Your task to perform on an android device: change notifications settings Image 0: 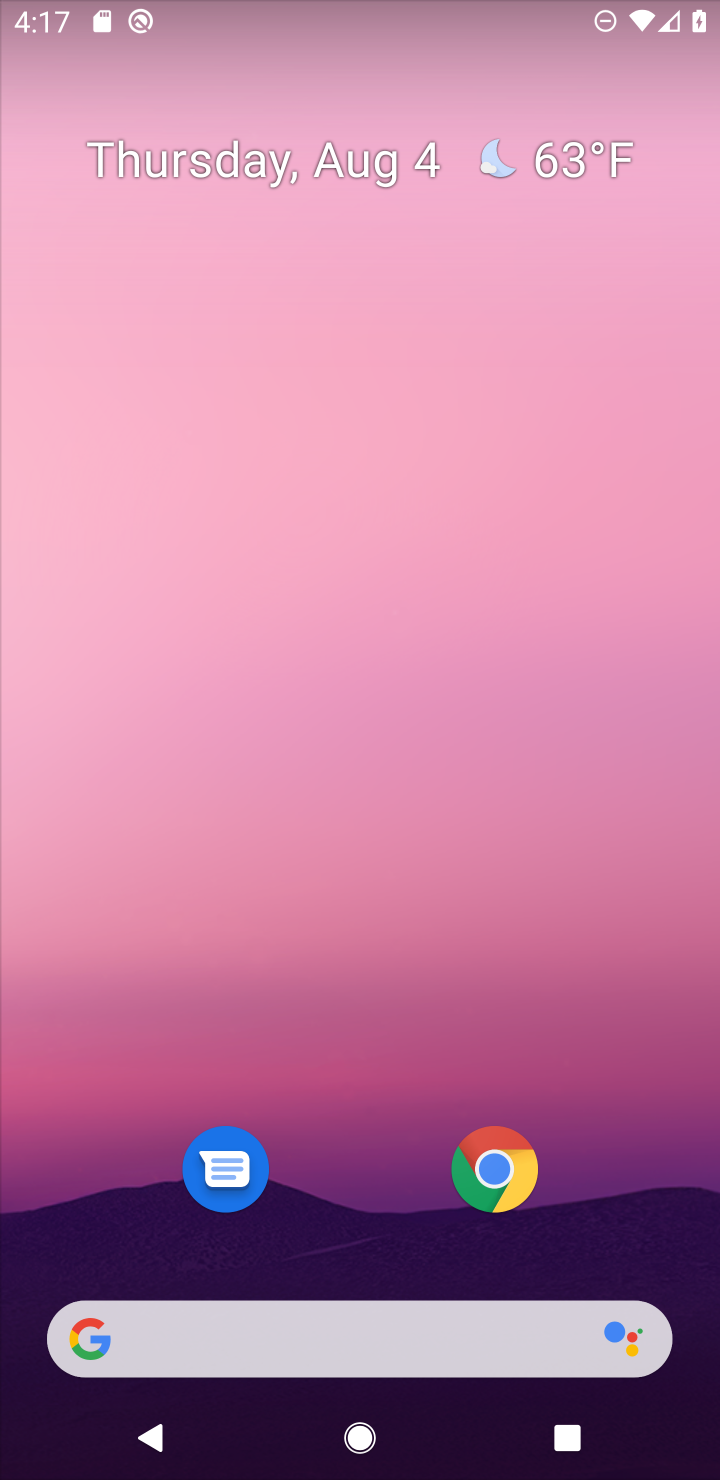
Step 0: drag from (366, 1218) to (384, 661)
Your task to perform on an android device: change notifications settings Image 1: 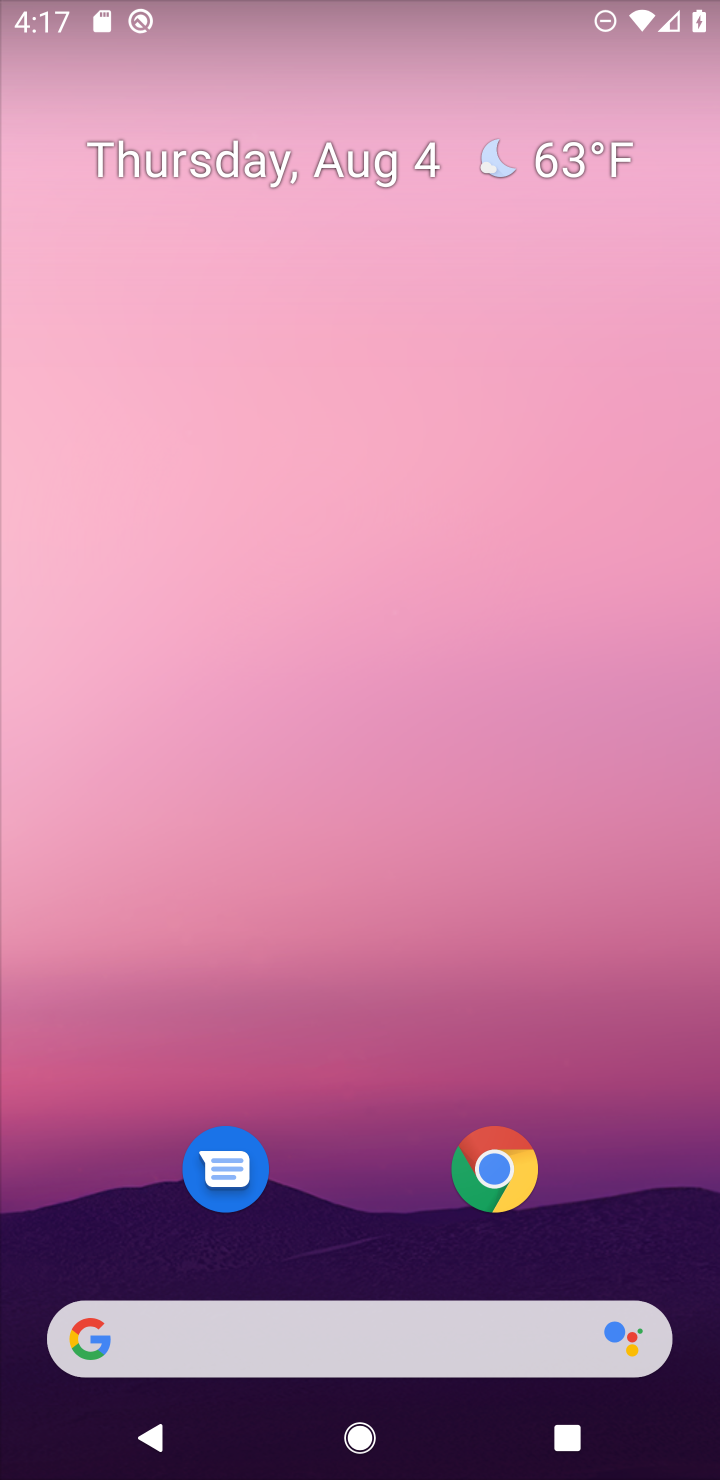
Step 1: drag from (307, 1286) to (345, 309)
Your task to perform on an android device: change notifications settings Image 2: 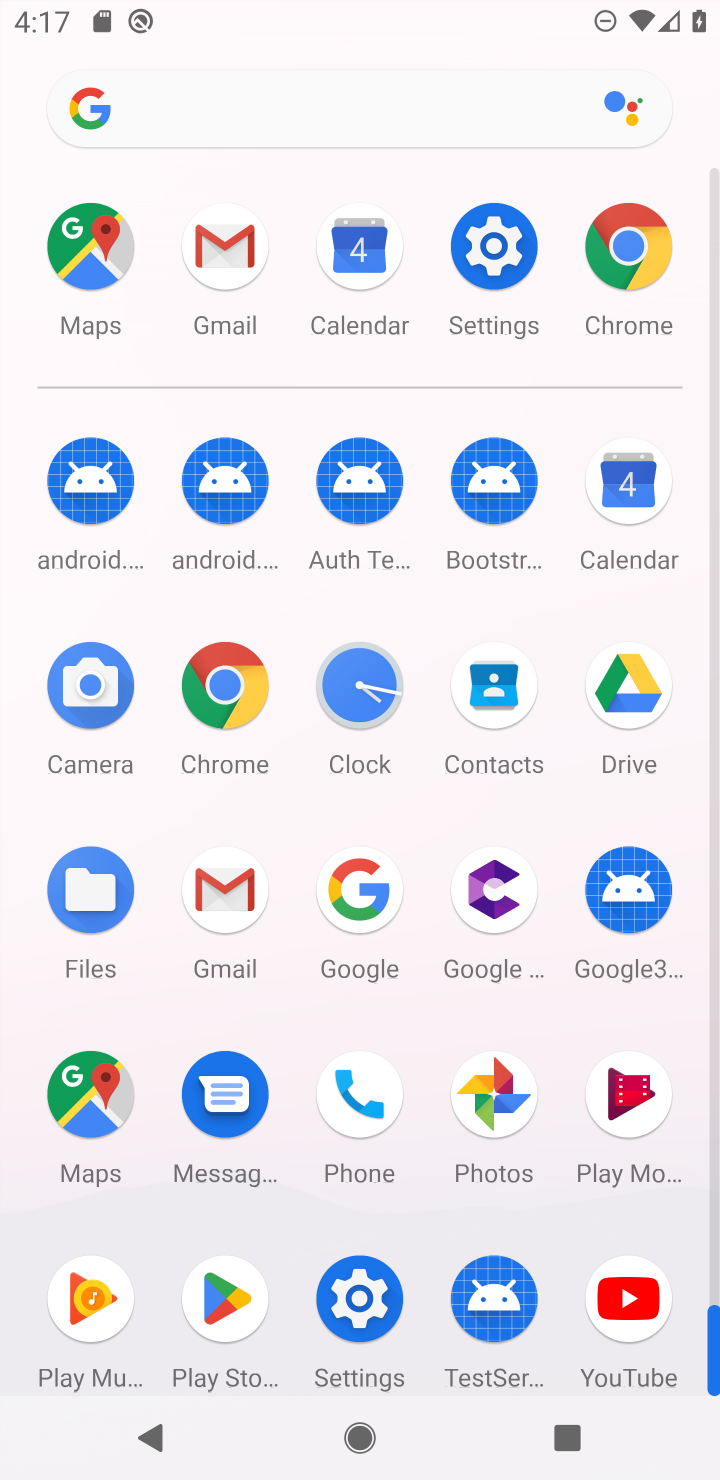
Step 2: click (484, 277)
Your task to perform on an android device: change notifications settings Image 3: 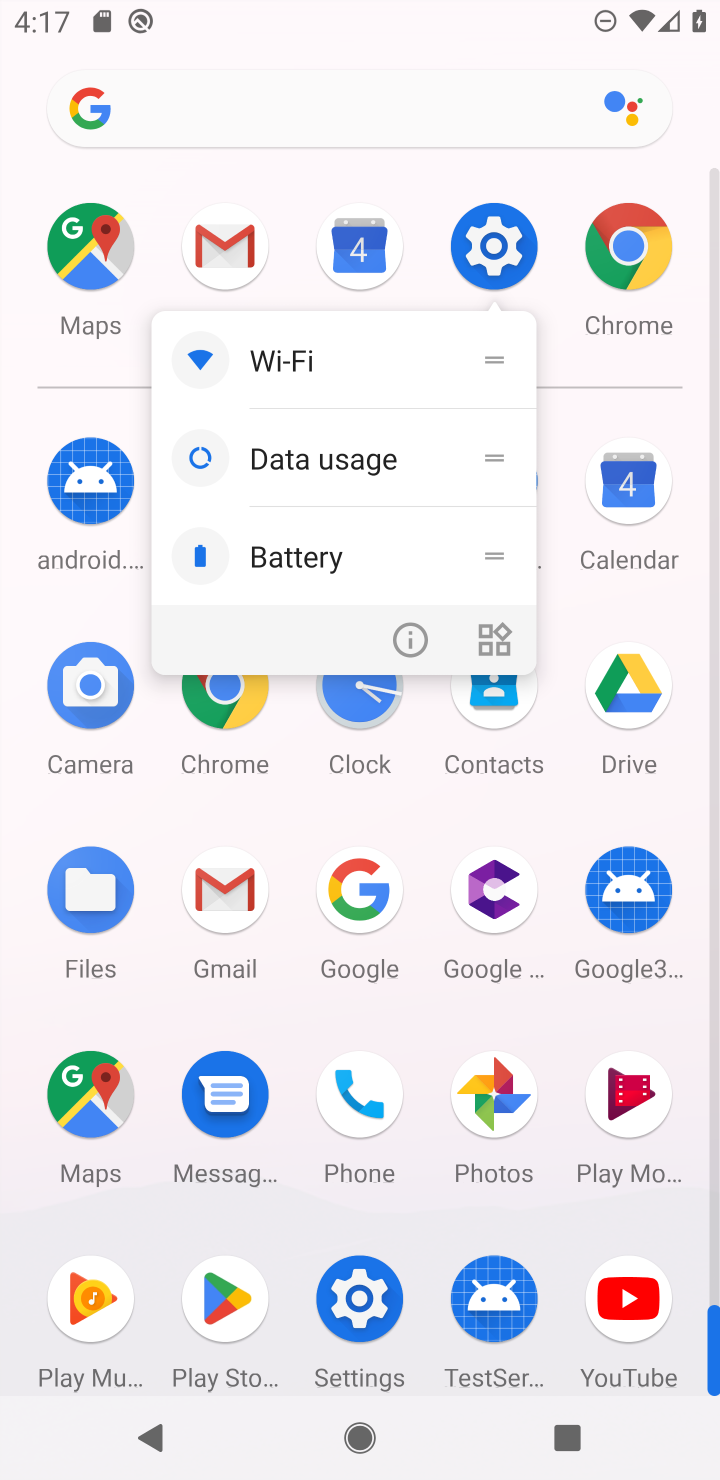
Step 3: click (503, 283)
Your task to perform on an android device: change notifications settings Image 4: 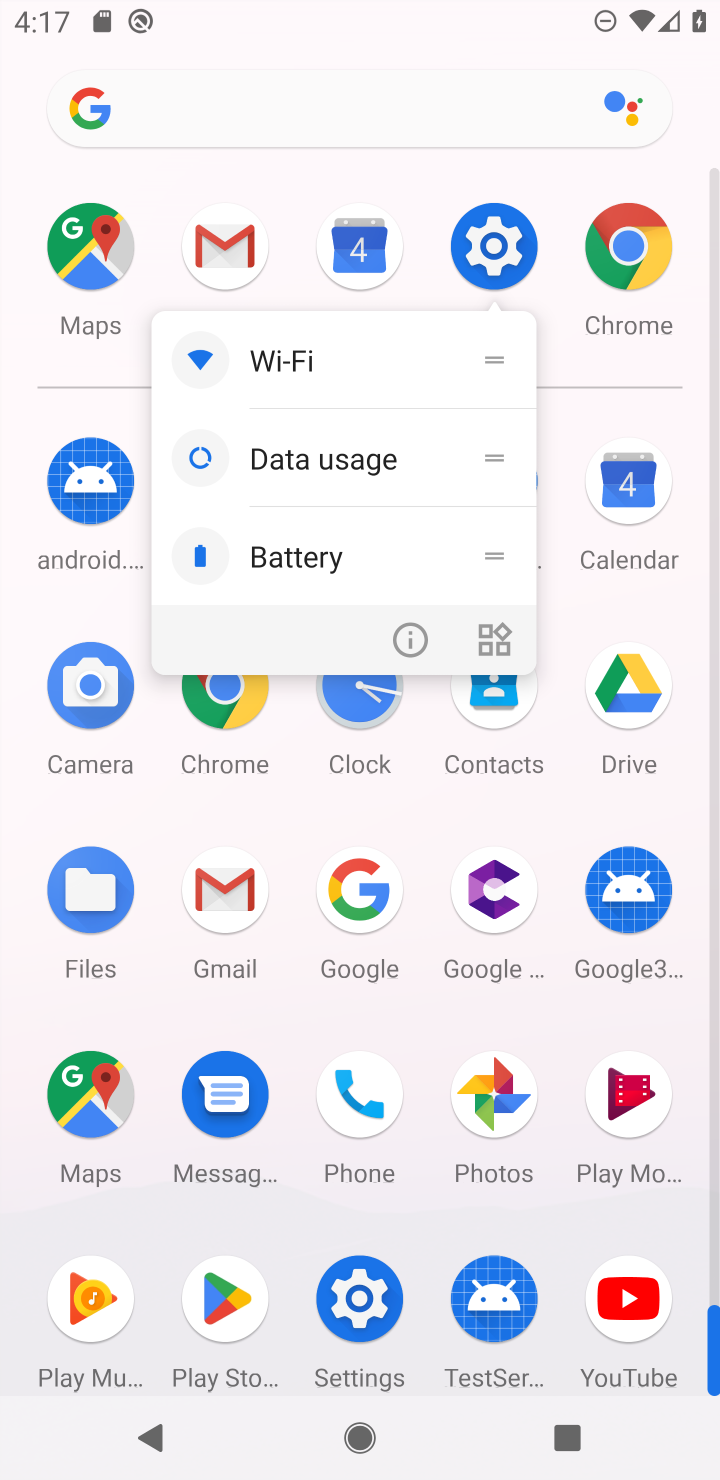
Step 4: click (489, 240)
Your task to perform on an android device: change notifications settings Image 5: 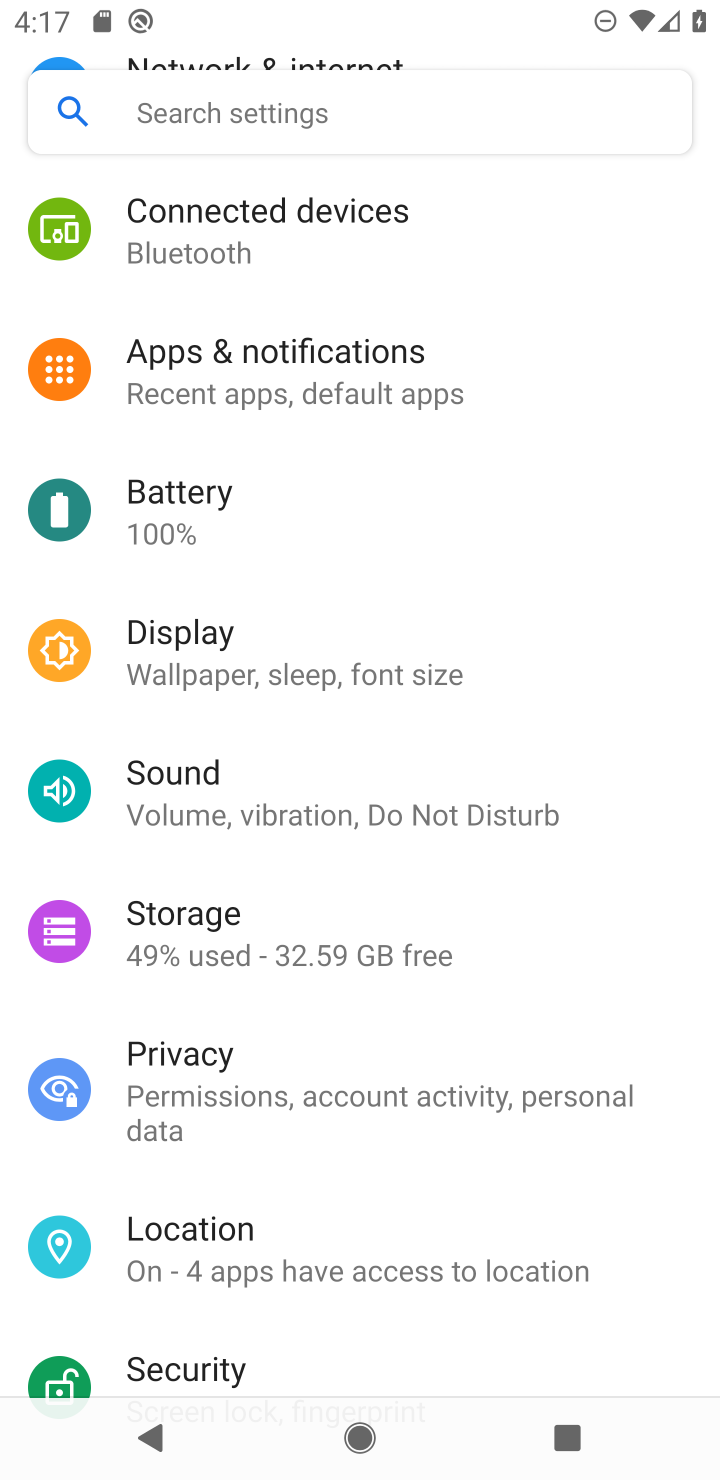
Step 5: click (357, 381)
Your task to perform on an android device: change notifications settings Image 6: 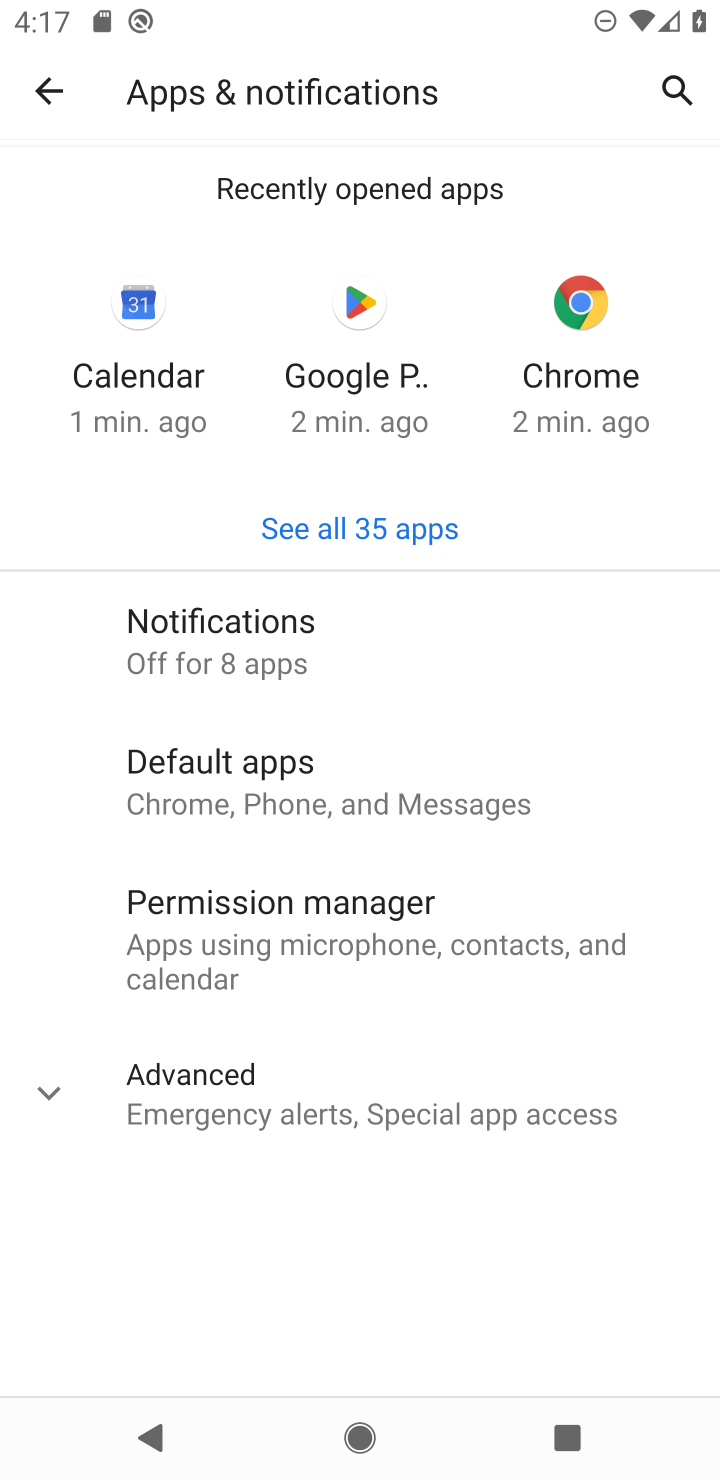
Step 6: click (287, 661)
Your task to perform on an android device: change notifications settings Image 7: 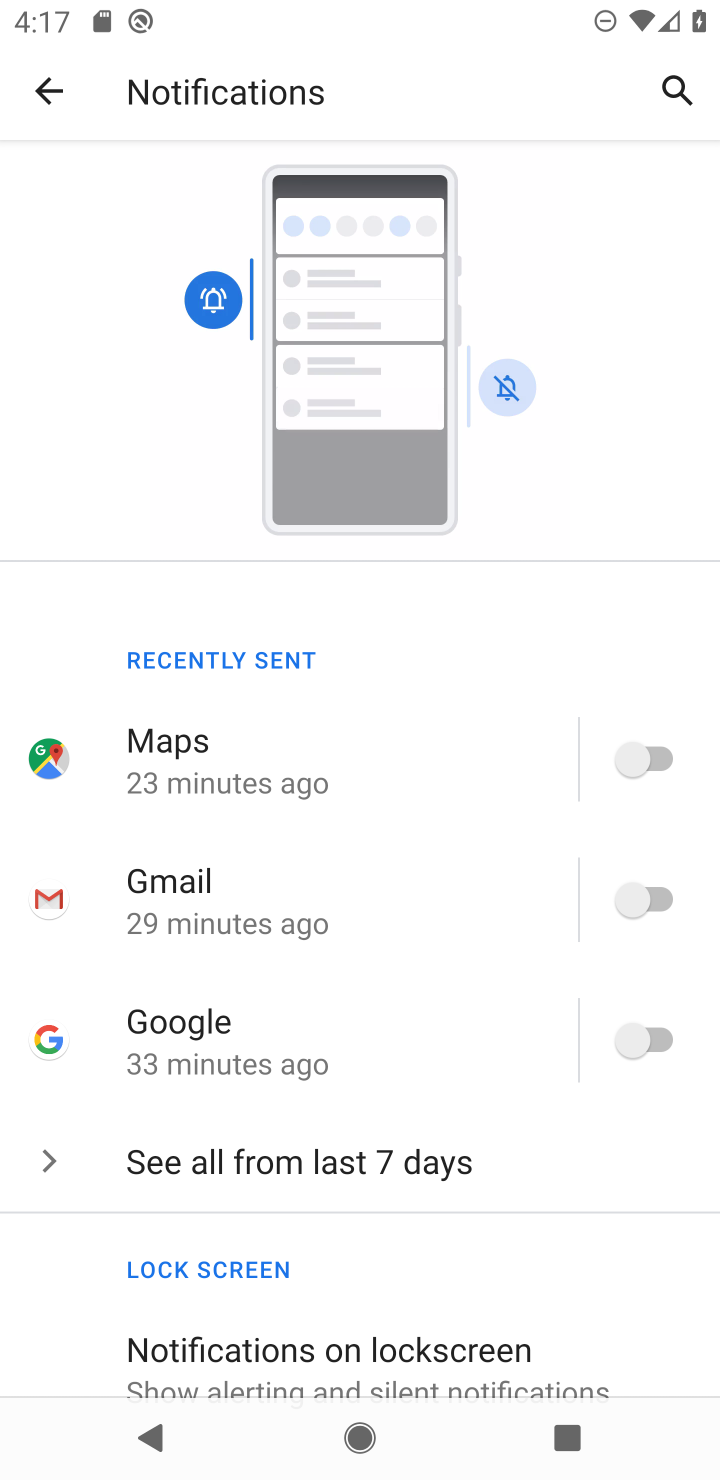
Step 7: drag from (308, 796) to (298, 559)
Your task to perform on an android device: change notifications settings Image 8: 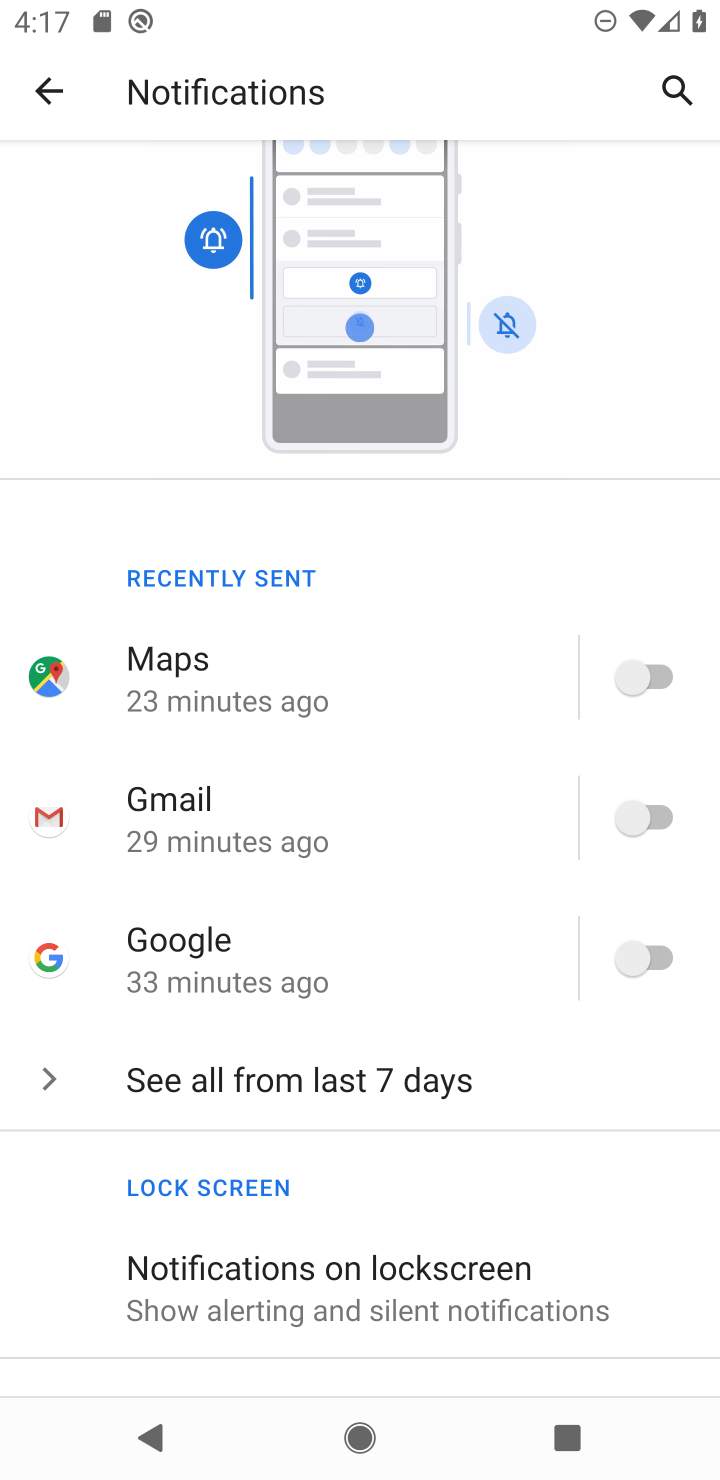
Step 8: click (257, 1075)
Your task to perform on an android device: change notifications settings Image 9: 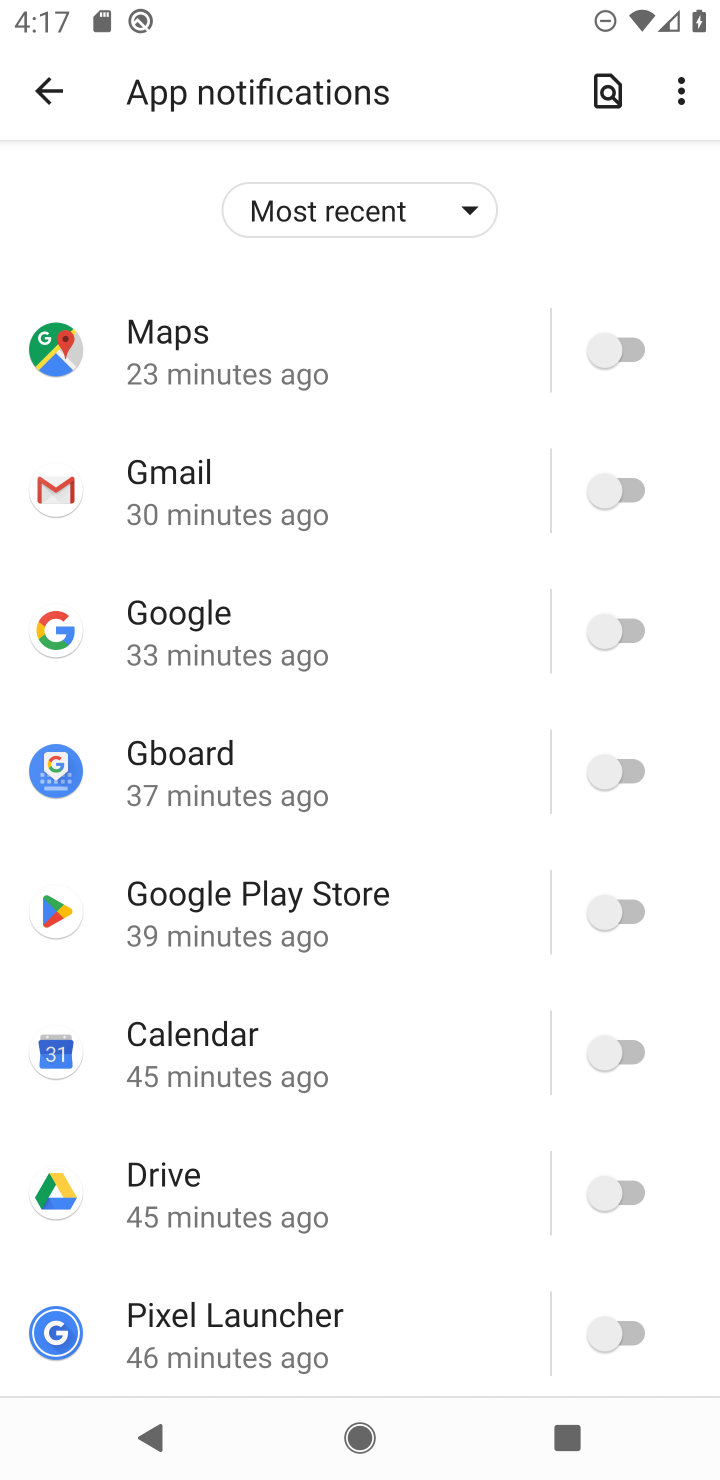
Step 9: click (586, 342)
Your task to perform on an android device: change notifications settings Image 10: 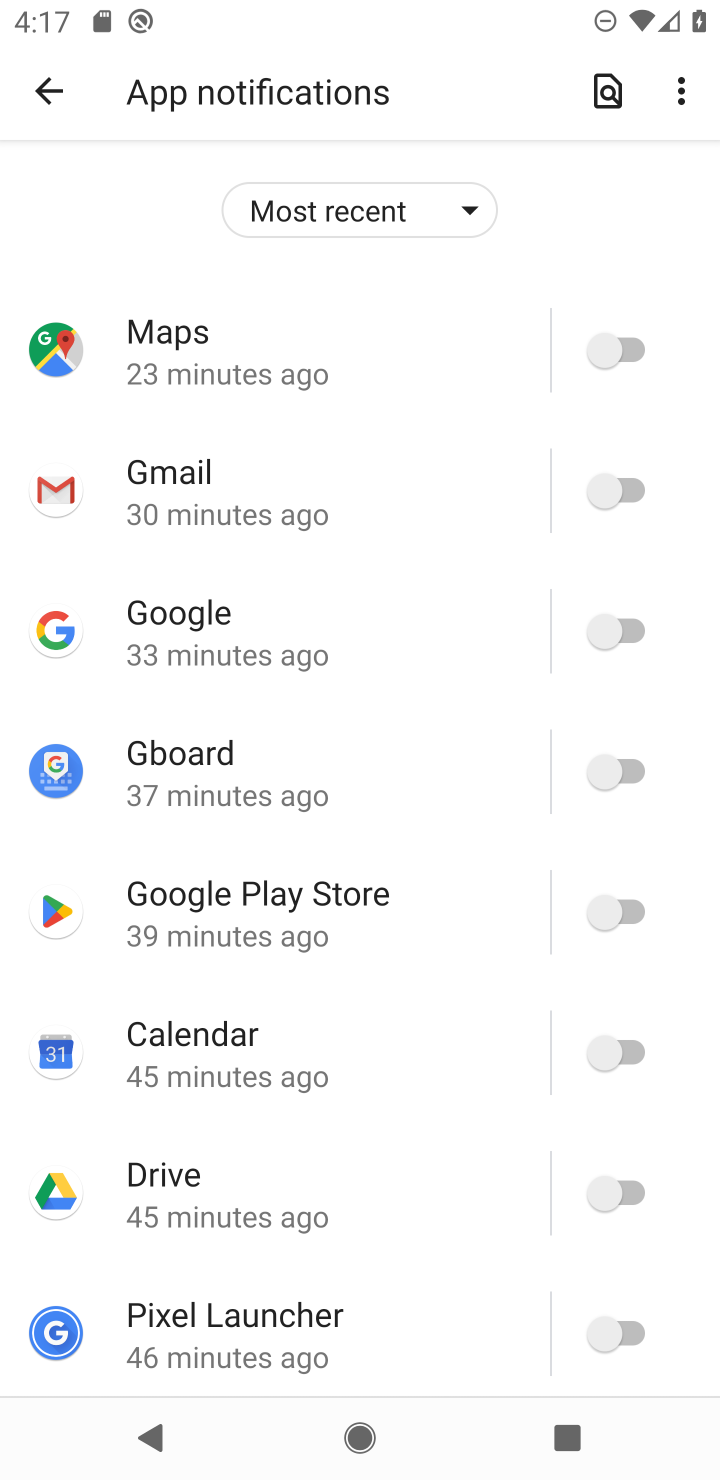
Step 10: click (597, 466)
Your task to perform on an android device: change notifications settings Image 11: 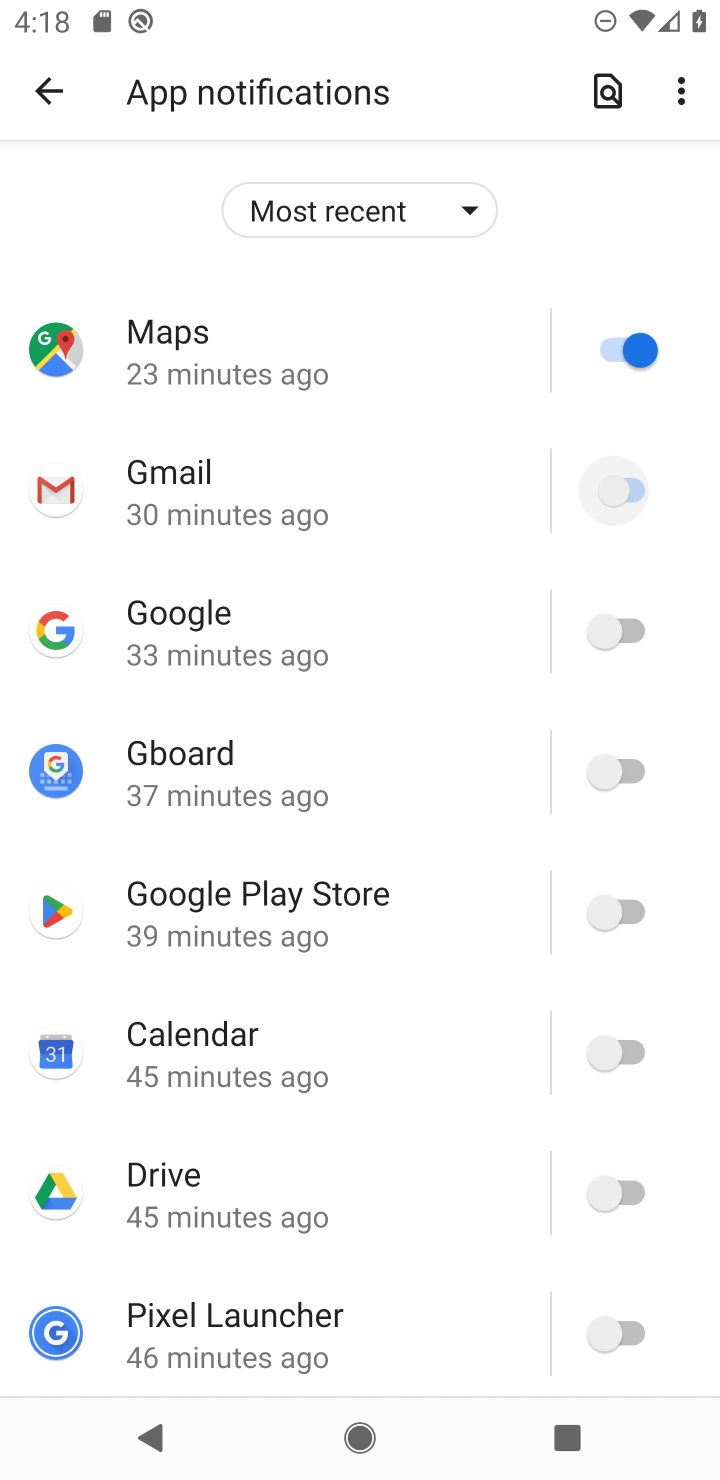
Step 11: click (603, 647)
Your task to perform on an android device: change notifications settings Image 12: 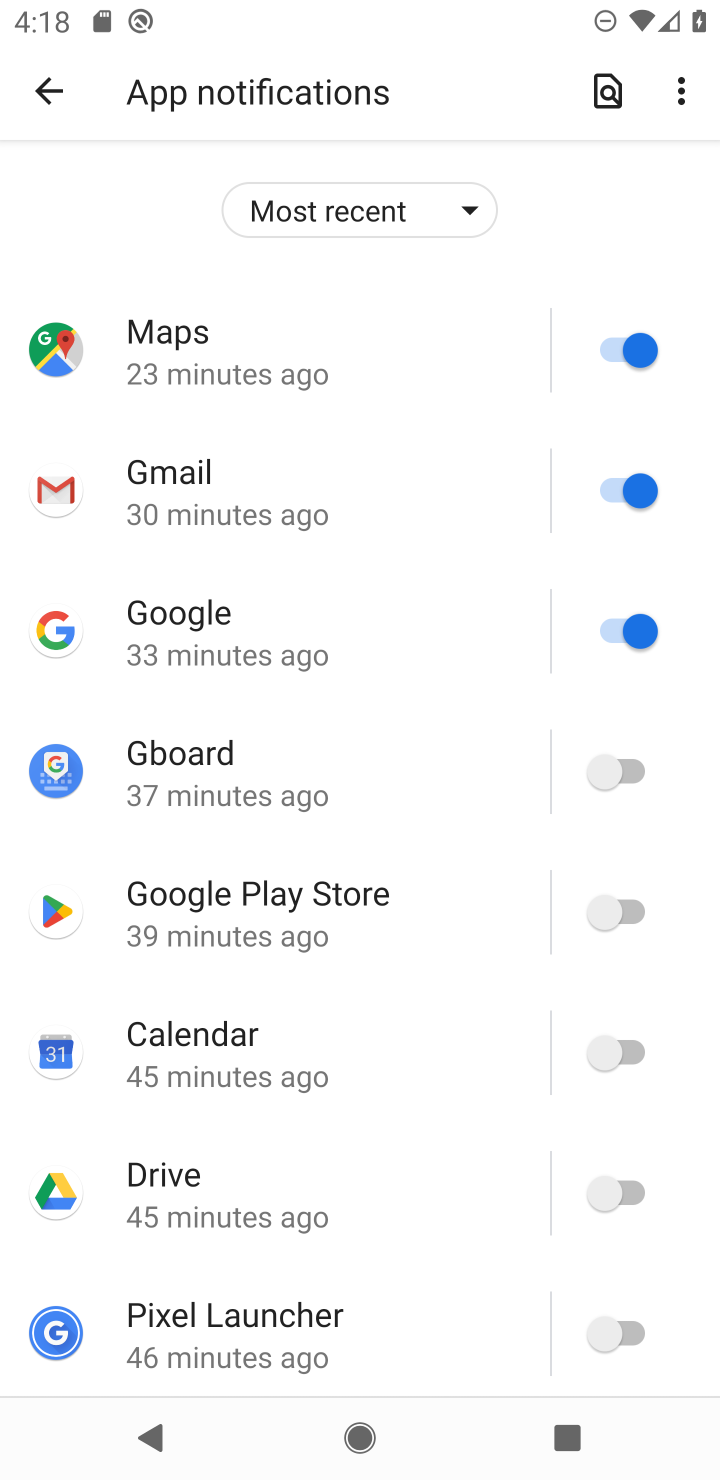
Step 12: click (624, 783)
Your task to perform on an android device: change notifications settings Image 13: 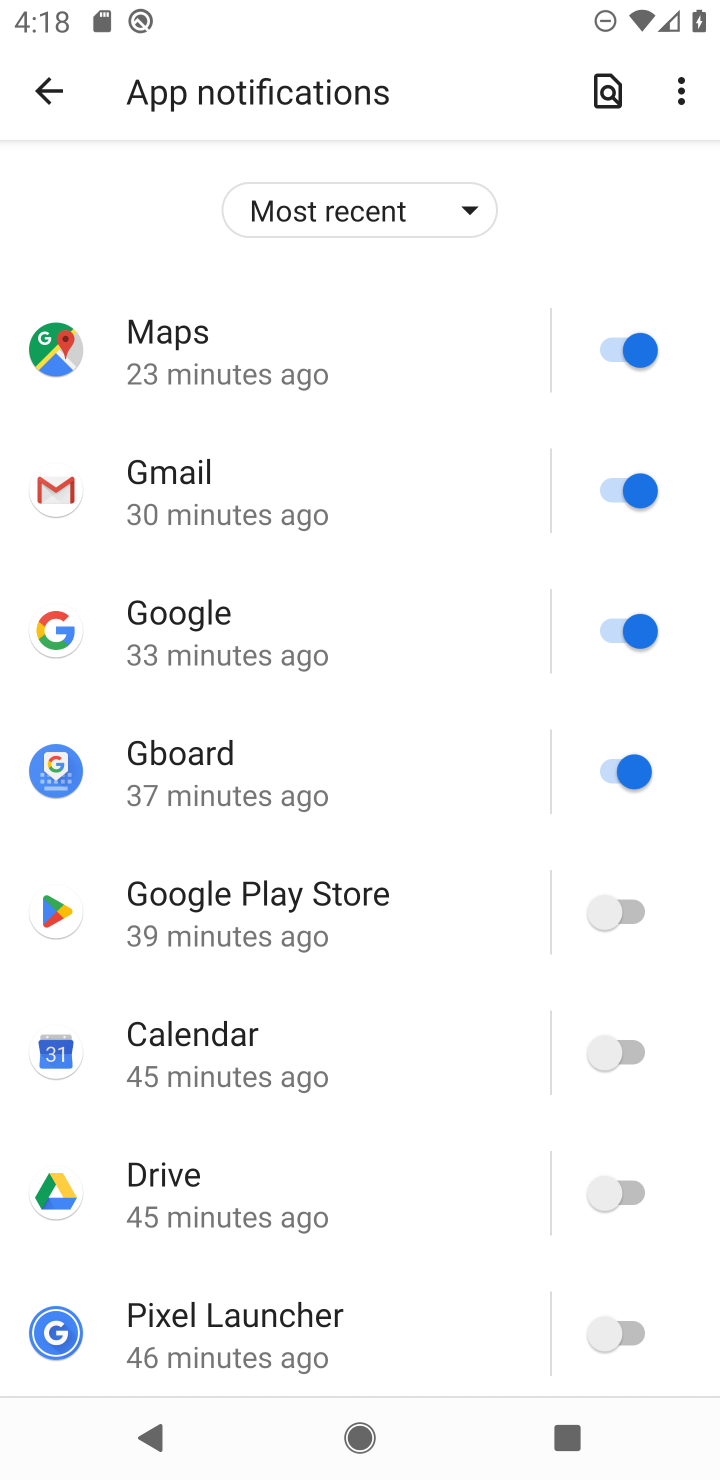
Step 13: click (652, 920)
Your task to perform on an android device: change notifications settings Image 14: 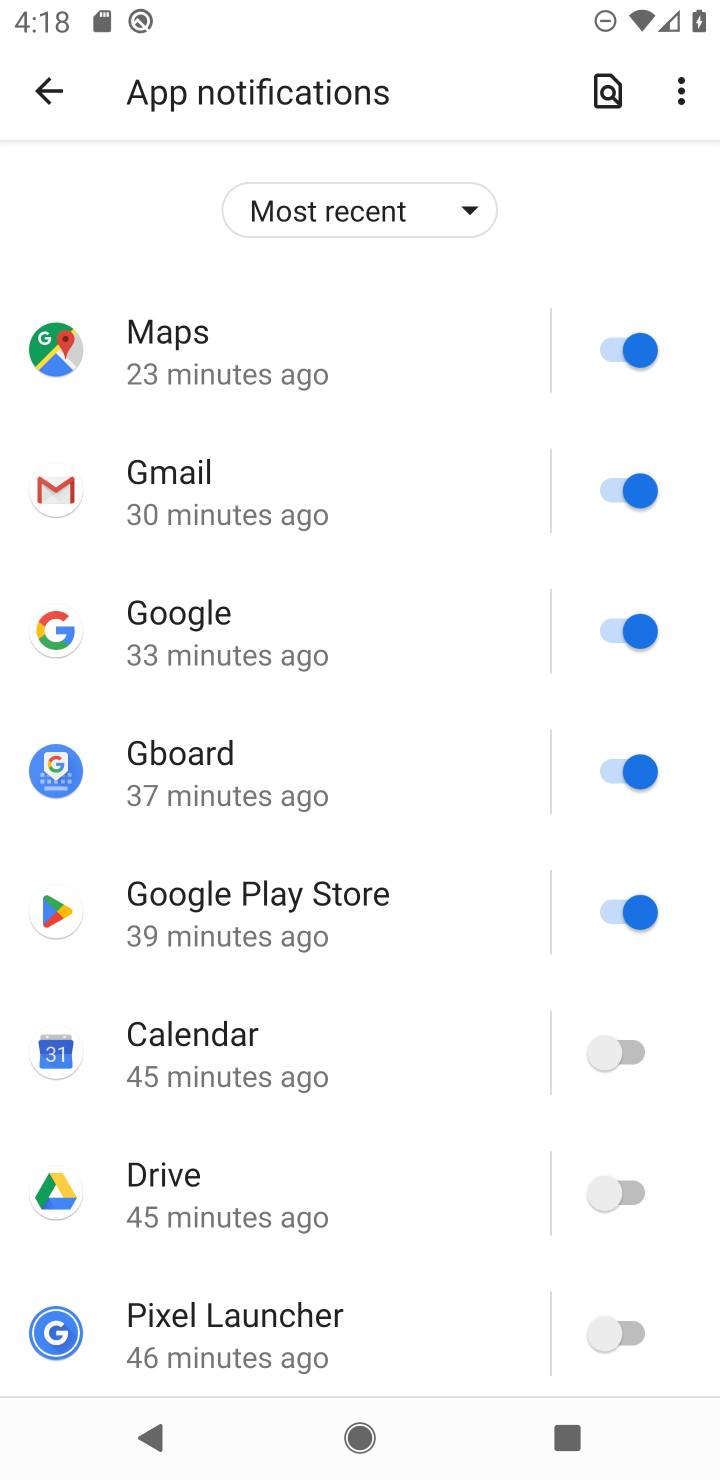
Step 14: click (642, 1033)
Your task to perform on an android device: change notifications settings Image 15: 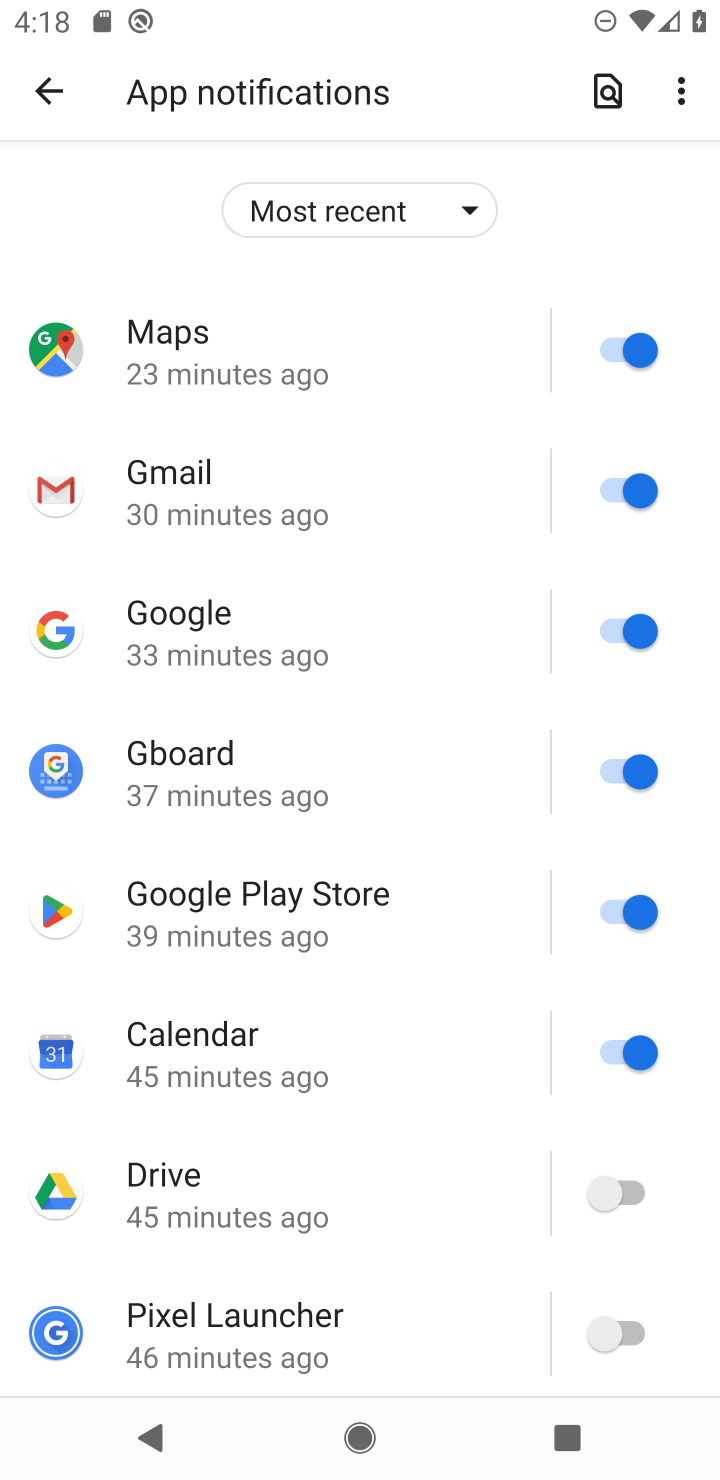
Step 15: click (653, 1200)
Your task to perform on an android device: change notifications settings Image 16: 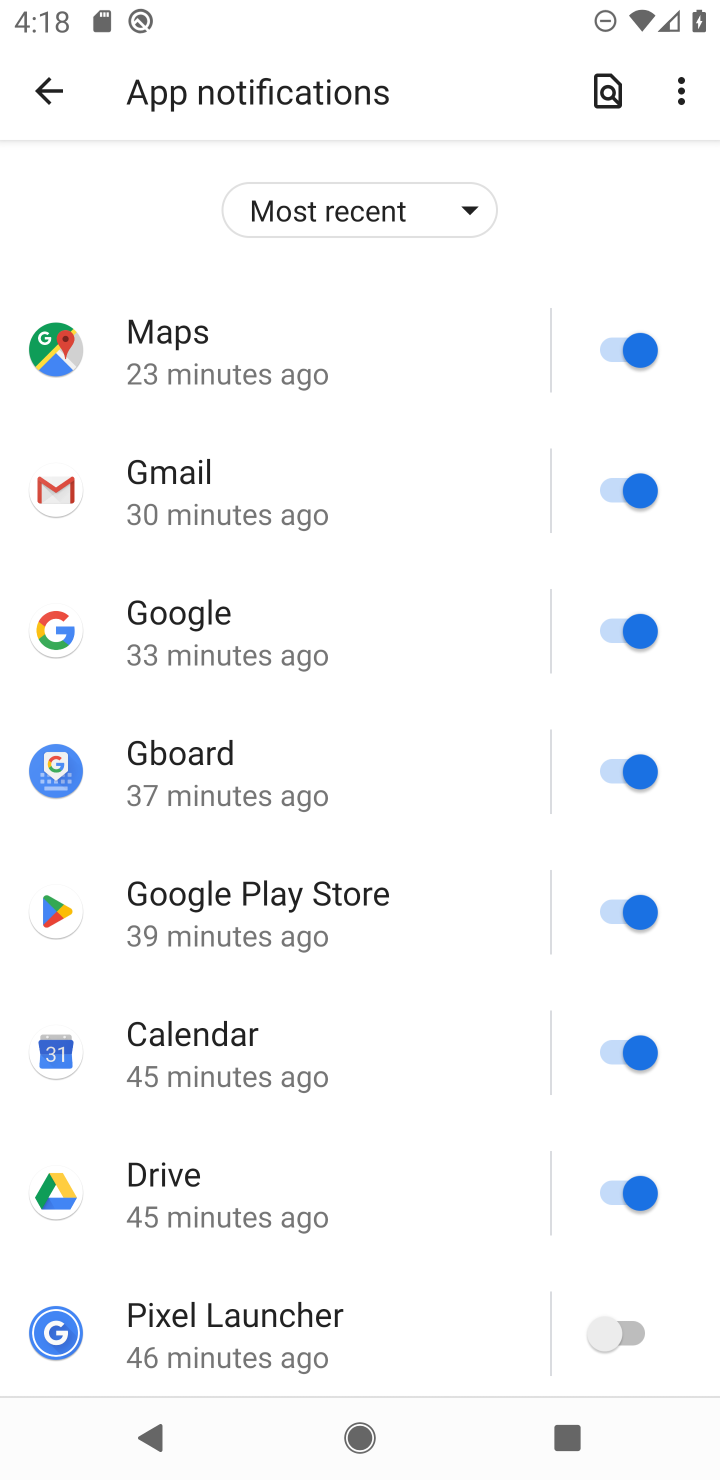
Step 16: click (653, 1322)
Your task to perform on an android device: change notifications settings Image 17: 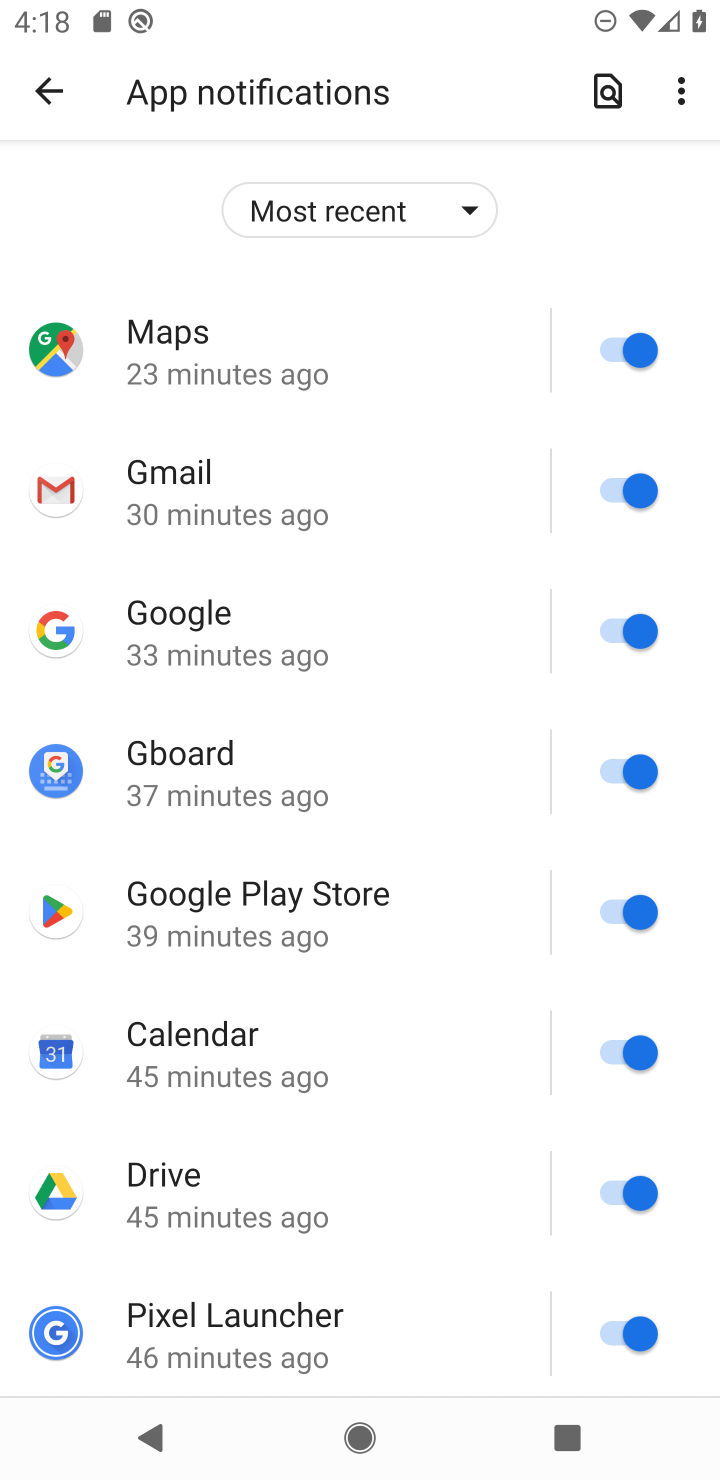
Step 17: task complete